Your task to perform on an android device: turn on data saver in the chrome app Image 0: 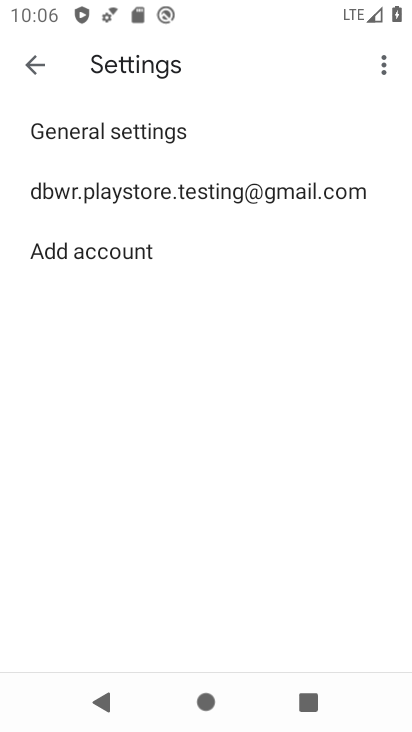
Step 0: press back button
Your task to perform on an android device: turn on data saver in the chrome app Image 1: 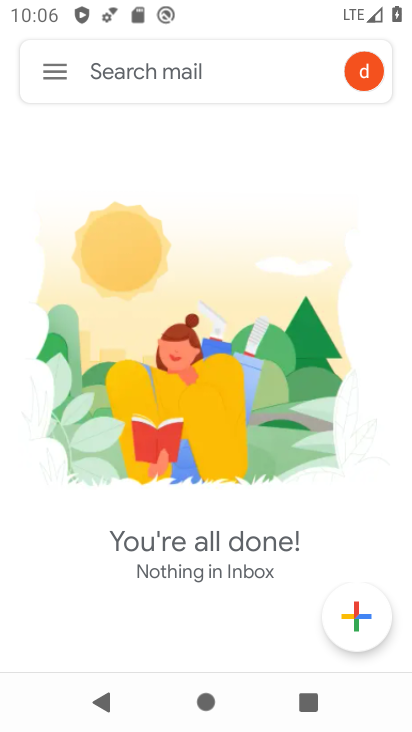
Step 1: press back button
Your task to perform on an android device: turn on data saver in the chrome app Image 2: 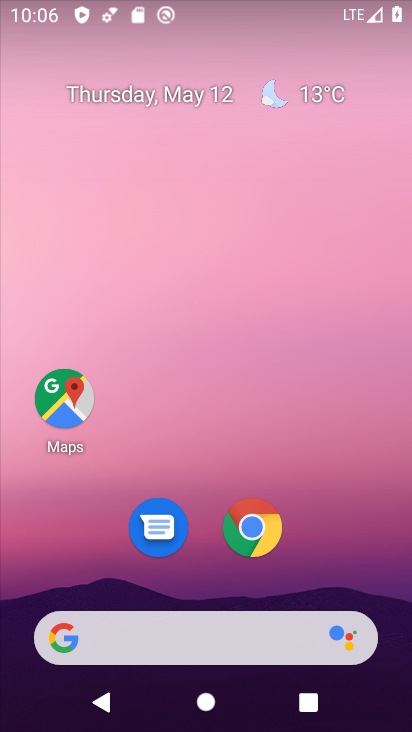
Step 2: click (251, 526)
Your task to perform on an android device: turn on data saver in the chrome app Image 3: 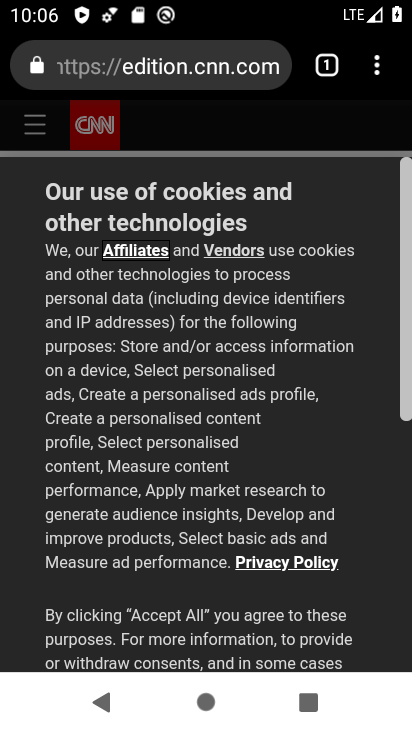
Step 3: click (375, 58)
Your task to perform on an android device: turn on data saver in the chrome app Image 4: 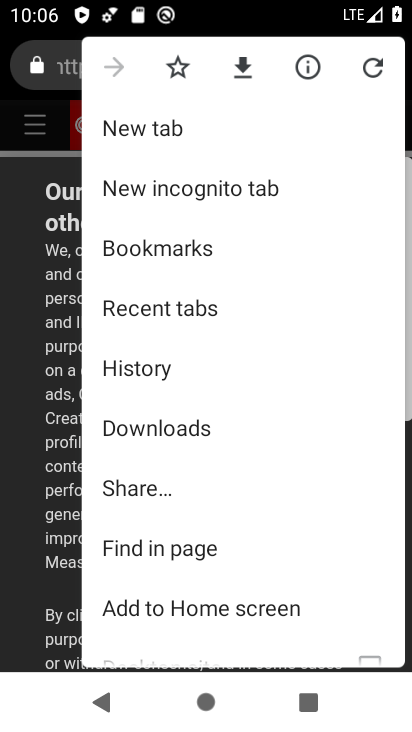
Step 4: drag from (157, 518) to (244, 199)
Your task to perform on an android device: turn on data saver in the chrome app Image 5: 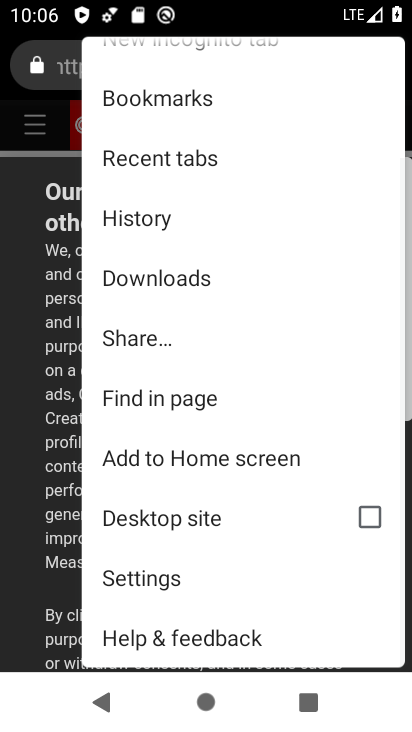
Step 5: click (150, 580)
Your task to perform on an android device: turn on data saver in the chrome app Image 6: 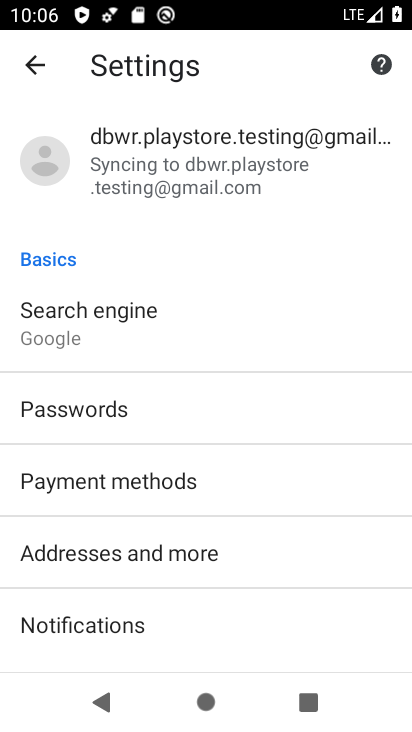
Step 6: drag from (138, 590) to (224, 256)
Your task to perform on an android device: turn on data saver in the chrome app Image 7: 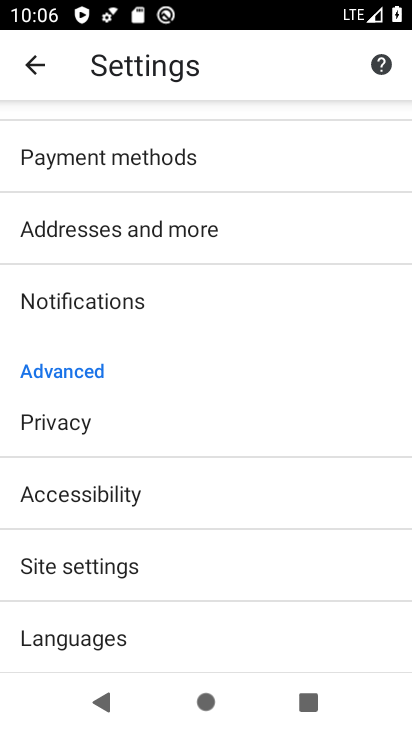
Step 7: drag from (98, 600) to (147, 433)
Your task to perform on an android device: turn on data saver in the chrome app Image 8: 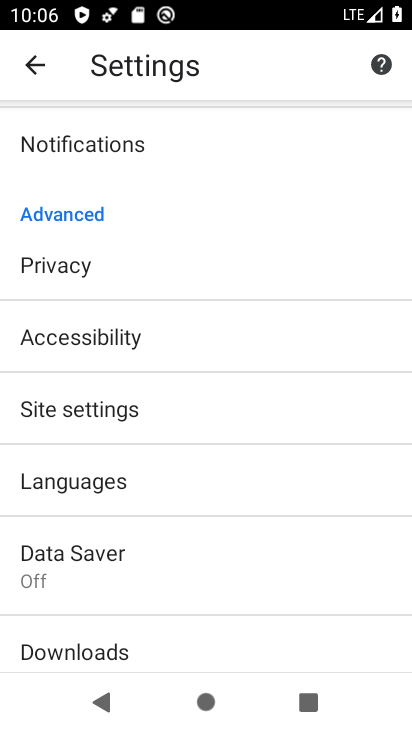
Step 8: click (72, 563)
Your task to perform on an android device: turn on data saver in the chrome app Image 9: 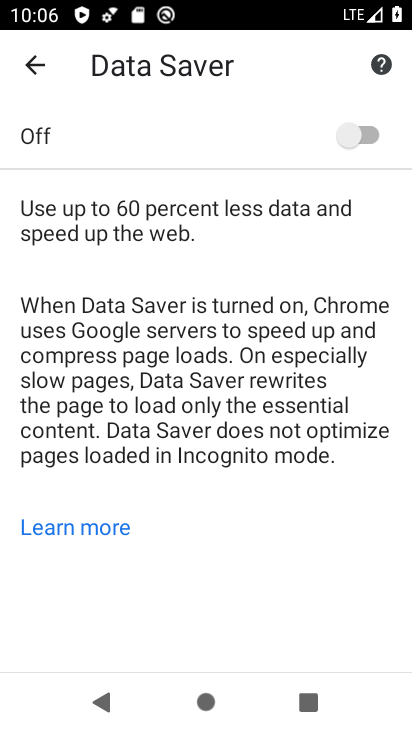
Step 9: click (372, 136)
Your task to perform on an android device: turn on data saver in the chrome app Image 10: 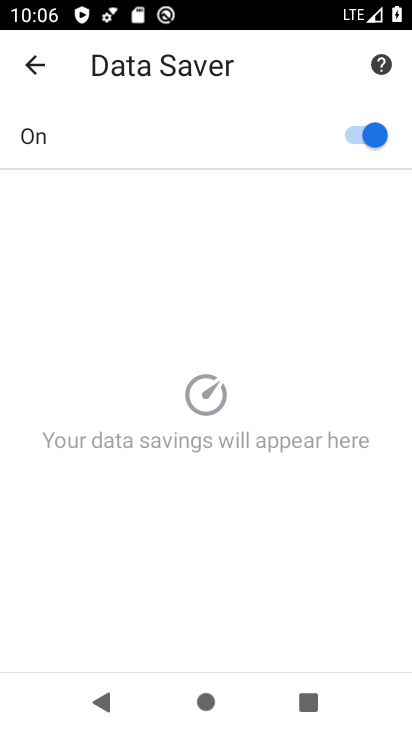
Step 10: task complete